Your task to perform on an android device: toggle show notifications on the lock screen Image 0: 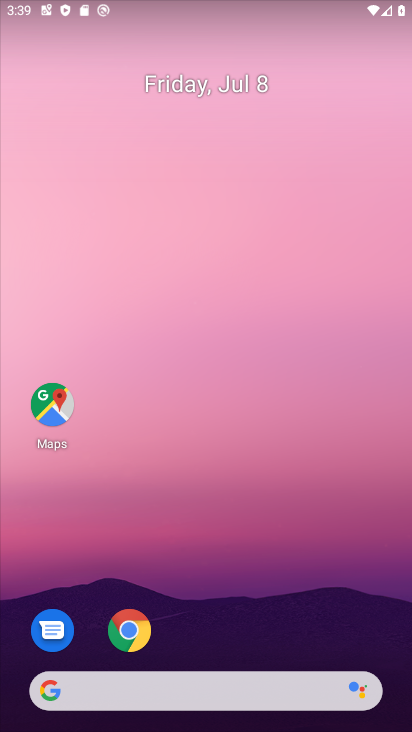
Step 0: drag from (251, 636) to (241, 148)
Your task to perform on an android device: toggle show notifications on the lock screen Image 1: 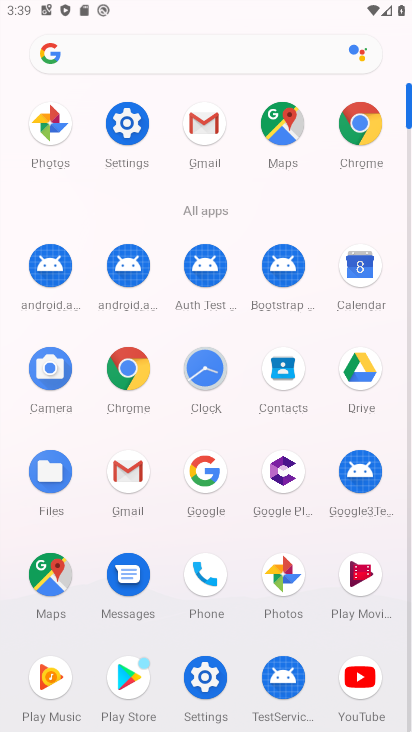
Step 1: click (135, 120)
Your task to perform on an android device: toggle show notifications on the lock screen Image 2: 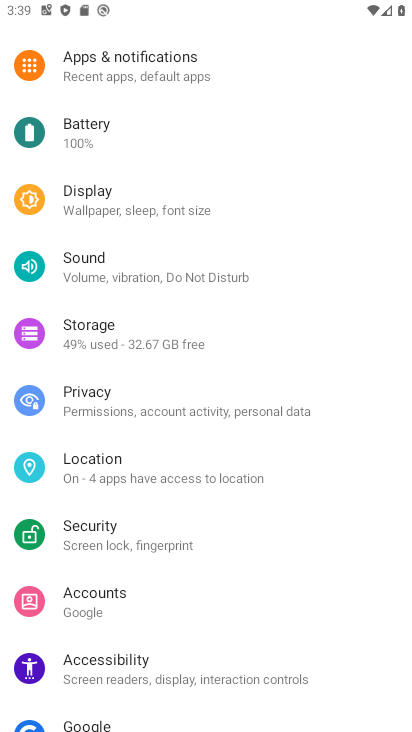
Step 2: click (154, 78)
Your task to perform on an android device: toggle show notifications on the lock screen Image 3: 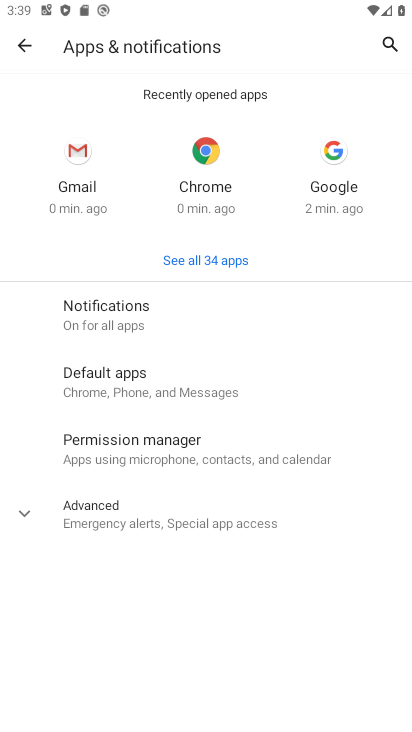
Step 3: click (132, 320)
Your task to perform on an android device: toggle show notifications on the lock screen Image 4: 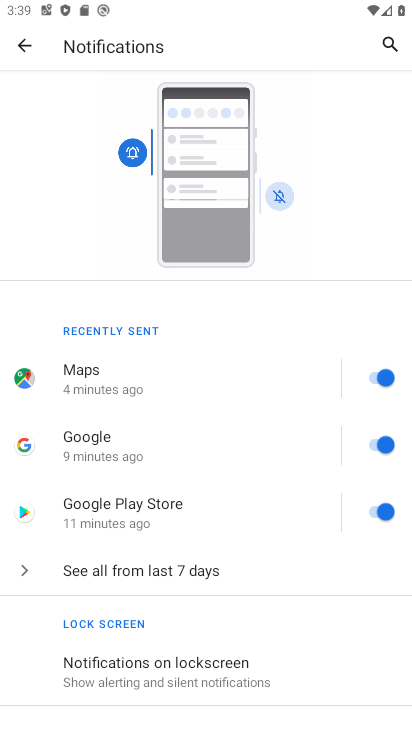
Step 4: click (103, 666)
Your task to perform on an android device: toggle show notifications on the lock screen Image 5: 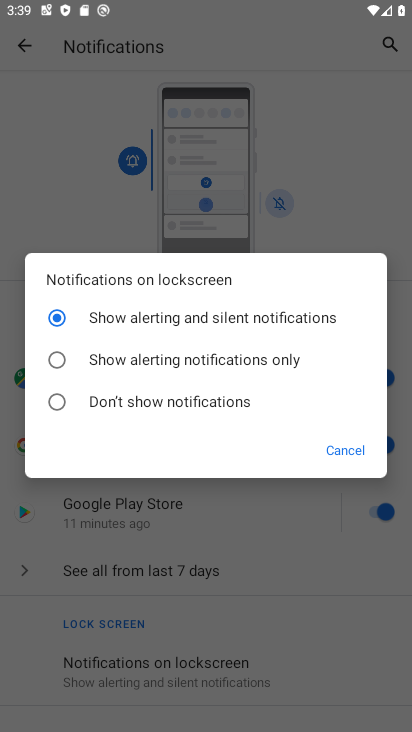
Step 5: click (157, 362)
Your task to perform on an android device: toggle show notifications on the lock screen Image 6: 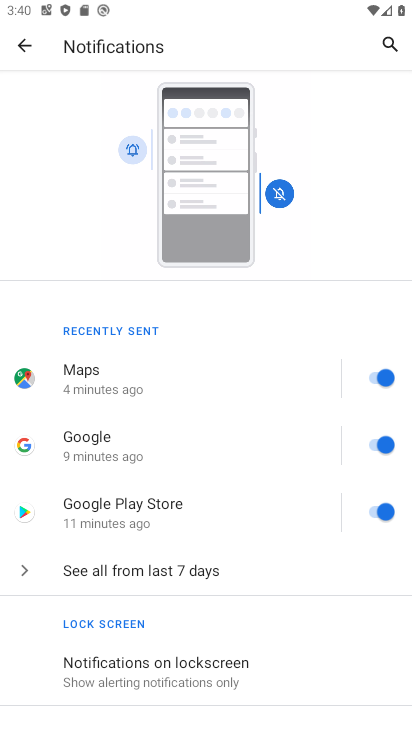
Step 6: task complete